Your task to perform on an android device: manage bookmarks in the chrome app Image 0: 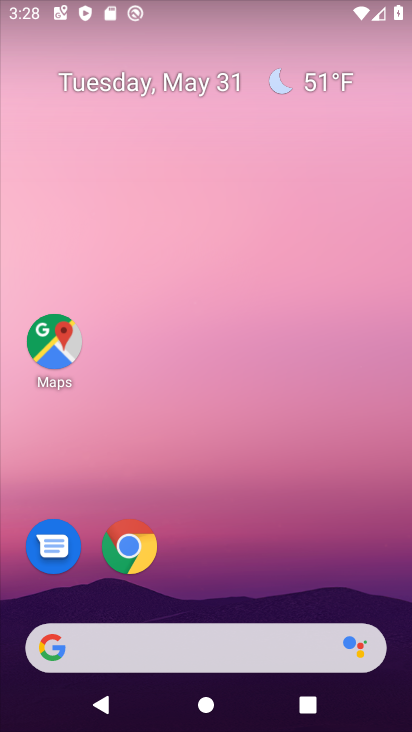
Step 0: click (142, 556)
Your task to perform on an android device: manage bookmarks in the chrome app Image 1: 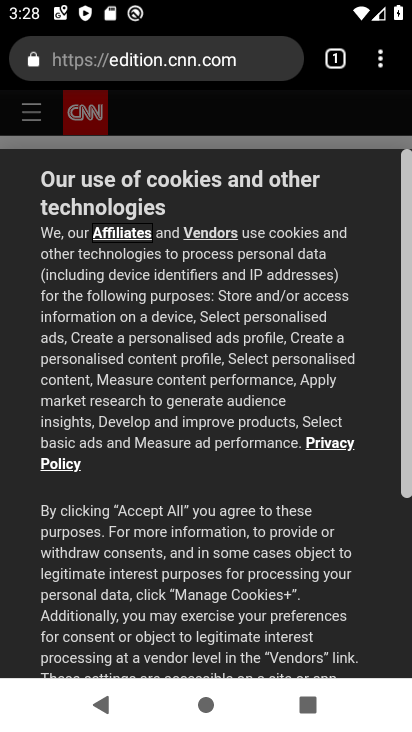
Step 1: click (381, 65)
Your task to perform on an android device: manage bookmarks in the chrome app Image 2: 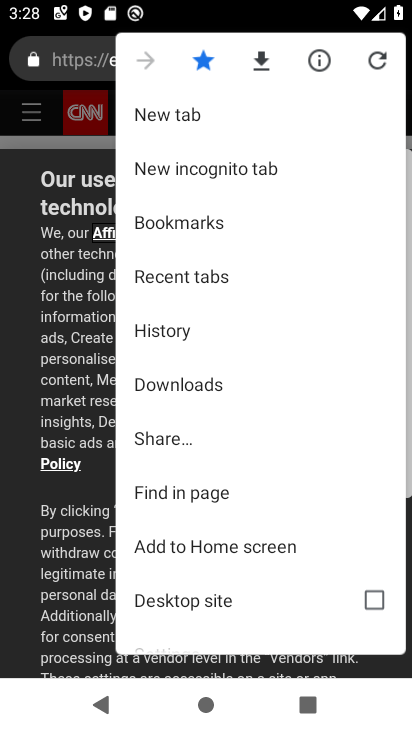
Step 2: click (233, 222)
Your task to perform on an android device: manage bookmarks in the chrome app Image 3: 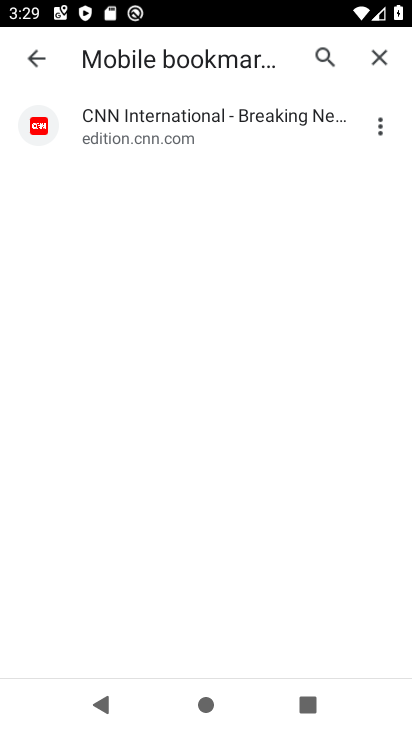
Step 3: click (384, 122)
Your task to perform on an android device: manage bookmarks in the chrome app Image 4: 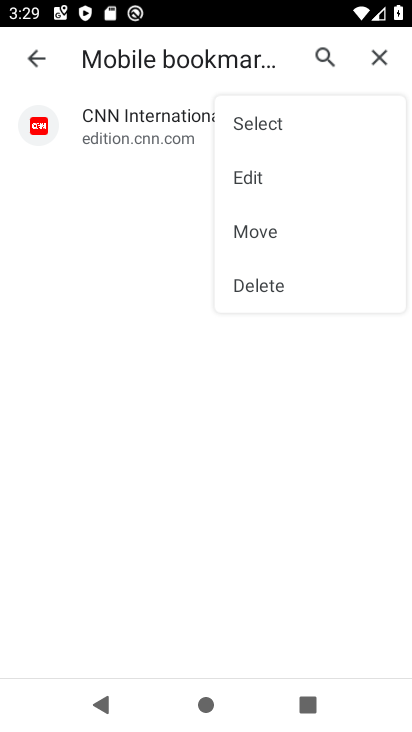
Step 4: click (259, 282)
Your task to perform on an android device: manage bookmarks in the chrome app Image 5: 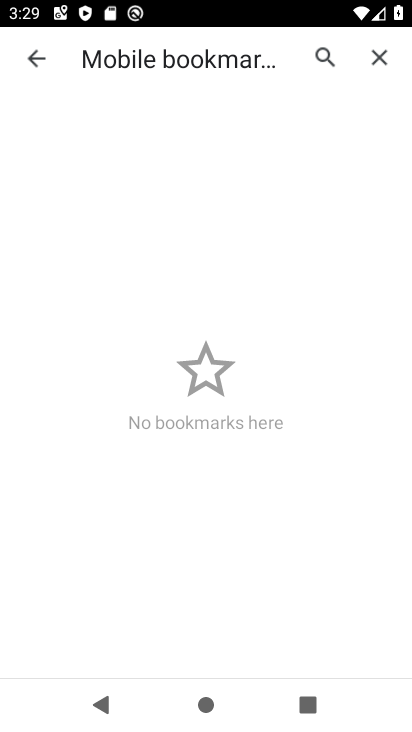
Step 5: task complete